Your task to perform on an android device: Open the stopwatch Image 0: 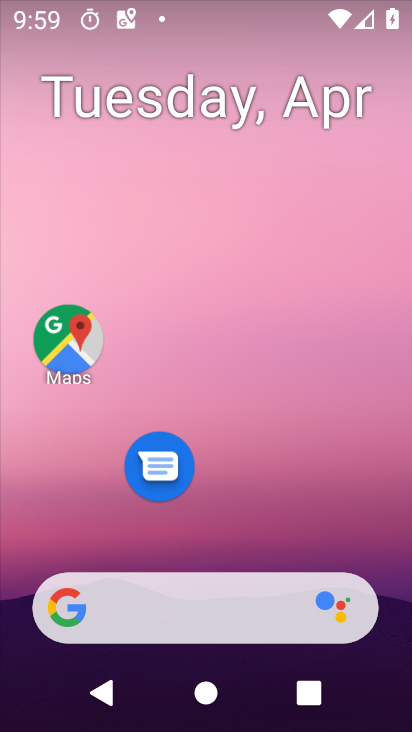
Step 0: drag from (313, 554) to (298, 232)
Your task to perform on an android device: Open the stopwatch Image 1: 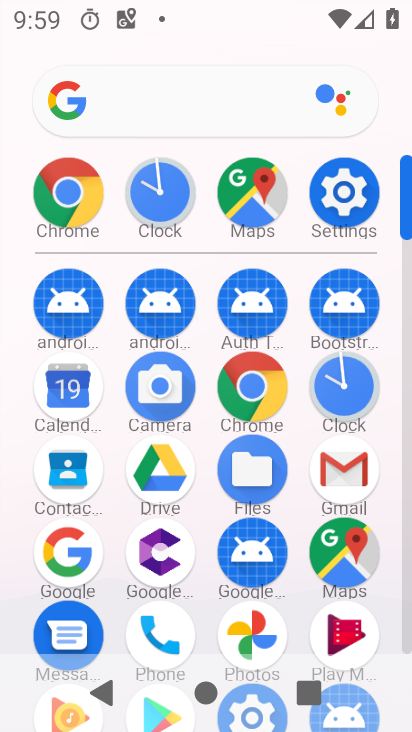
Step 1: click (355, 392)
Your task to perform on an android device: Open the stopwatch Image 2: 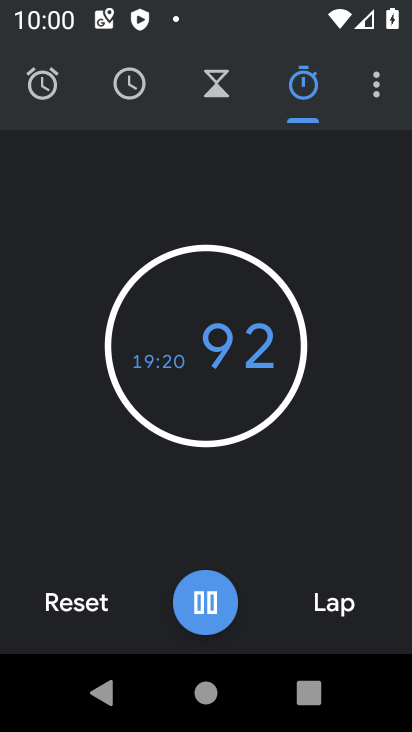
Step 2: click (281, 392)
Your task to perform on an android device: Open the stopwatch Image 3: 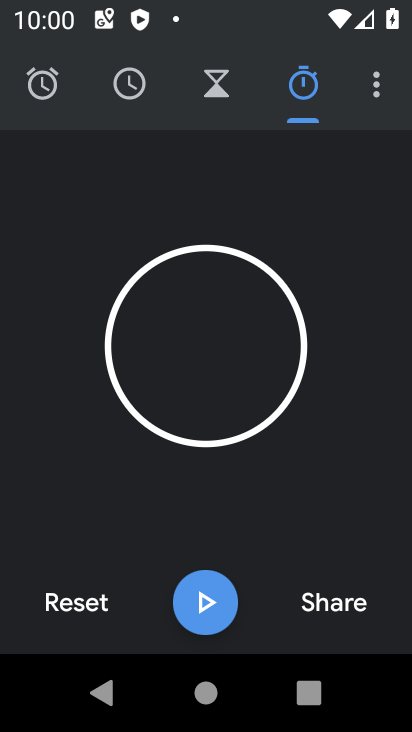
Step 3: task complete